Your task to perform on an android device: Open my contact list Image 0: 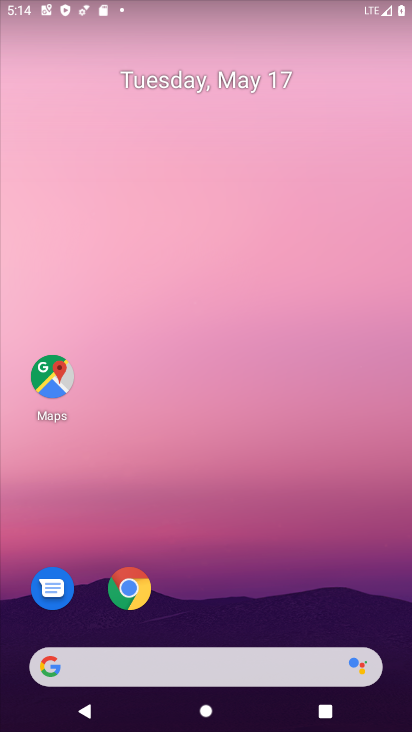
Step 0: drag from (235, 596) to (187, 173)
Your task to perform on an android device: Open my contact list Image 1: 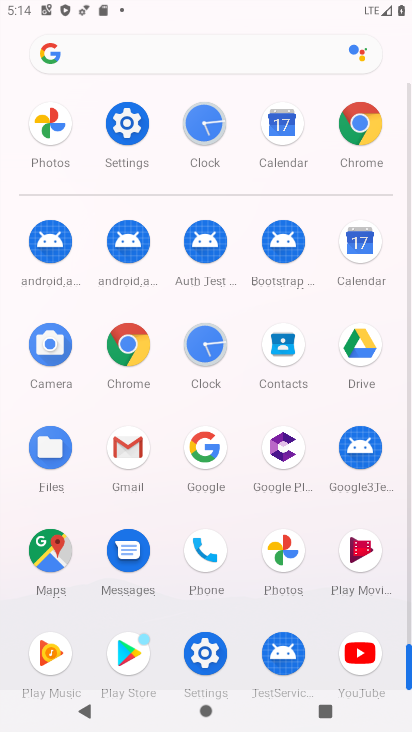
Step 1: click (283, 344)
Your task to perform on an android device: Open my contact list Image 2: 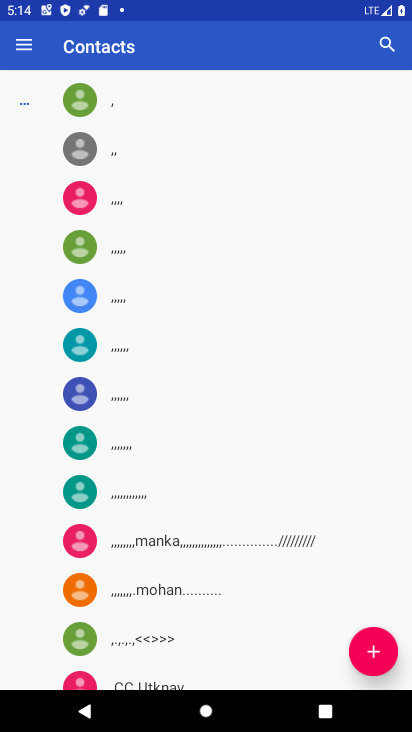
Step 2: task complete